Your task to perform on an android device: What is the news today? Image 0: 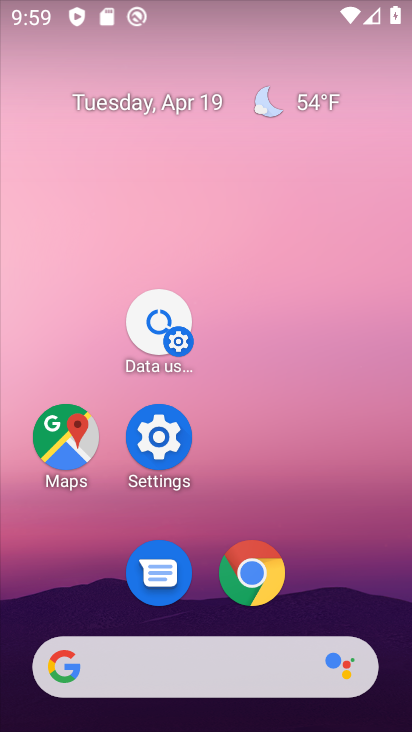
Step 0: drag from (46, 196) to (237, 728)
Your task to perform on an android device: What is the news today? Image 1: 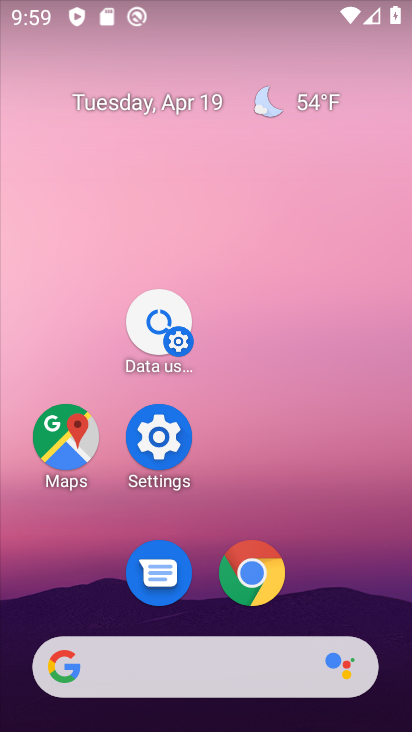
Step 1: task complete